Your task to perform on an android device: all mails in gmail Image 0: 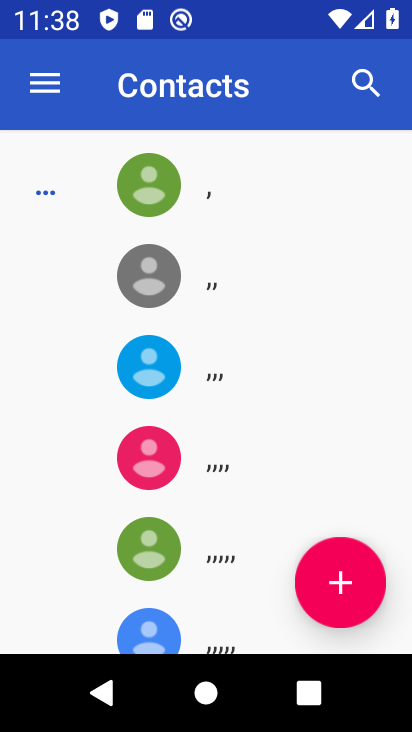
Step 0: press home button
Your task to perform on an android device: all mails in gmail Image 1: 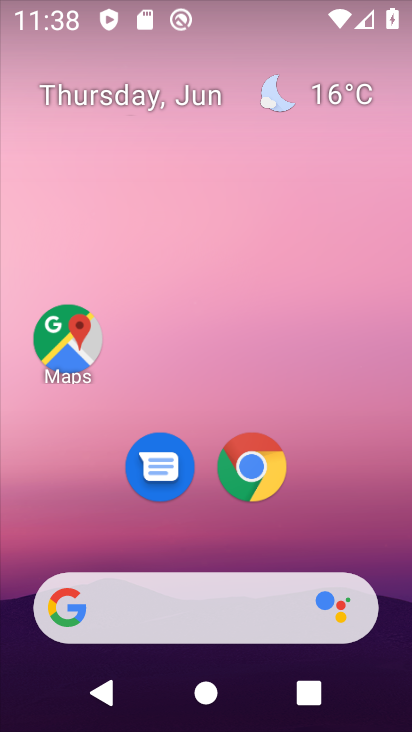
Step 1: drag from (394, 601) to (311, 35)
Your task to perform on an android device: all mails in gmail Image 2: 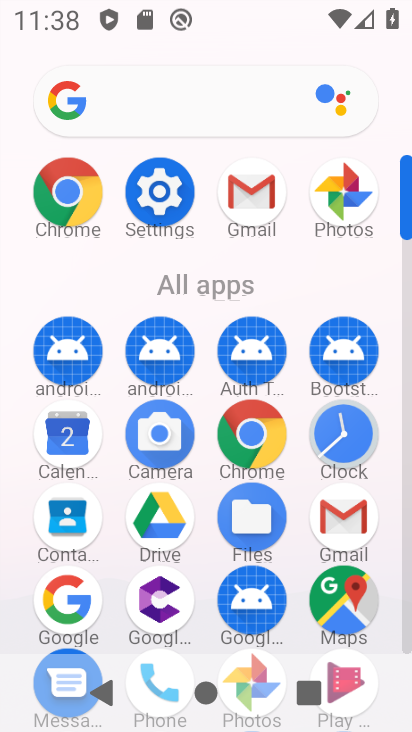
Step 2: click (407, 638)
Your task to perform on an android device: all mails in gmail Image 3: 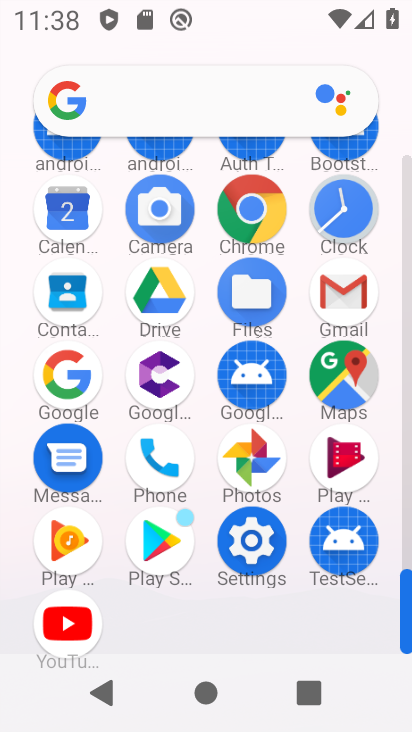
Step 3: click (343, 297)
Your task to perform on an android device: all mails in gmail Image 4: 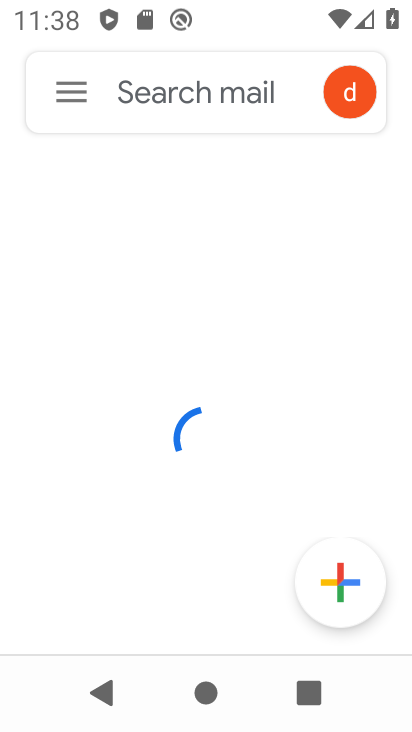
Step 4: click (71, 93)
Your task to perform on an android device: all mails in gmail Image 5: 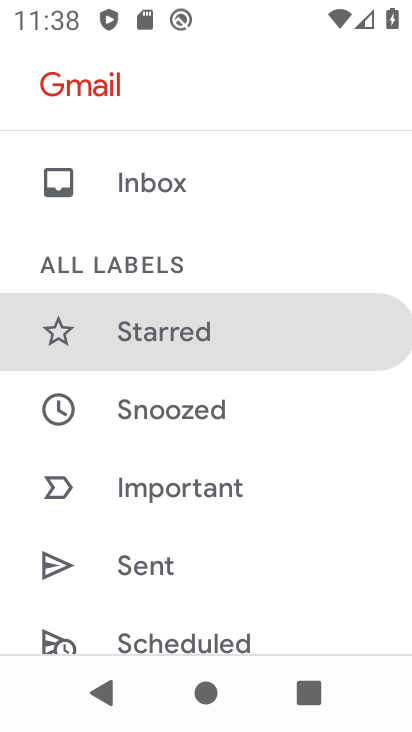
Step 5: drag from (286, 605) to (346, 165)
Your task to perform on an android device: all mails in gmail Image 6: 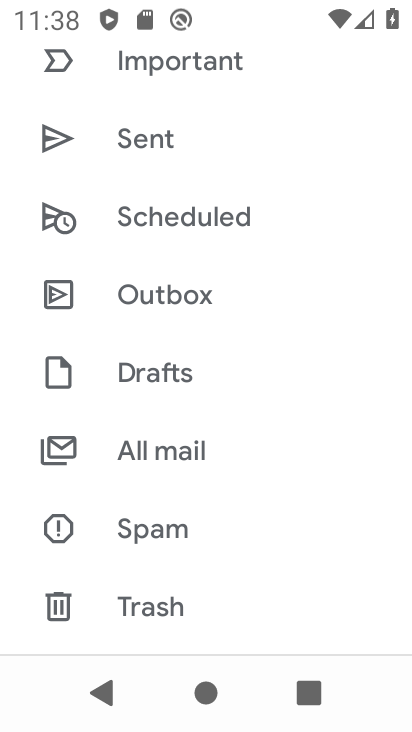
Step 6: click (144, 453)
Your task to perform on an android device: all mails in gmail Image 7: 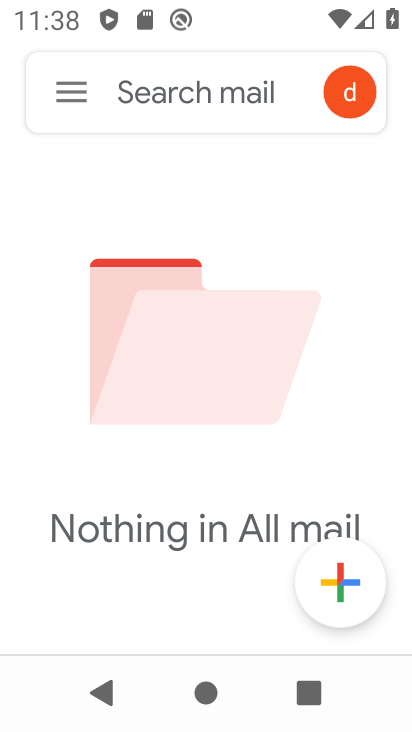
Step 7: task complete